Your task to perform on an android device: What is the recent news? Image 0: 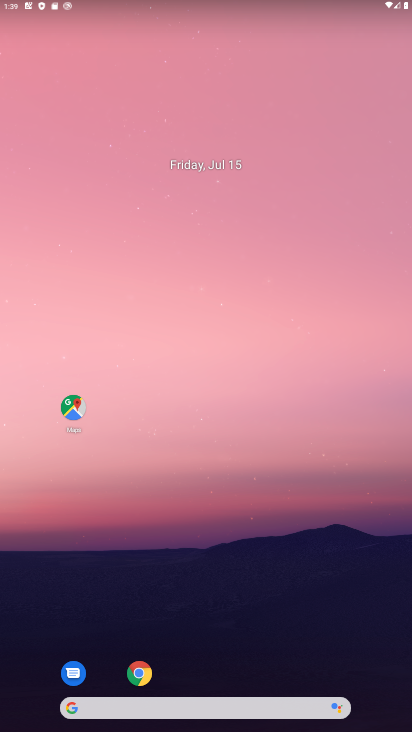
Step 0: drag from (57, 237) to (396, 225)
Your task to perform on an android device: What is the recent news? Image 1: 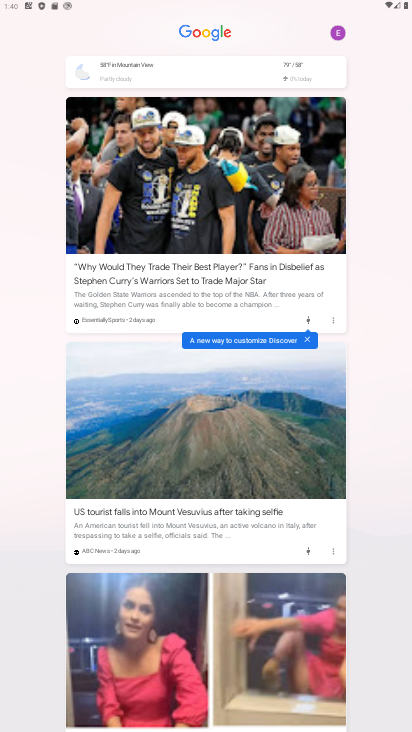
Step 1: task complete